Your task to perform on an android device: turn off sleep mode Image 0: 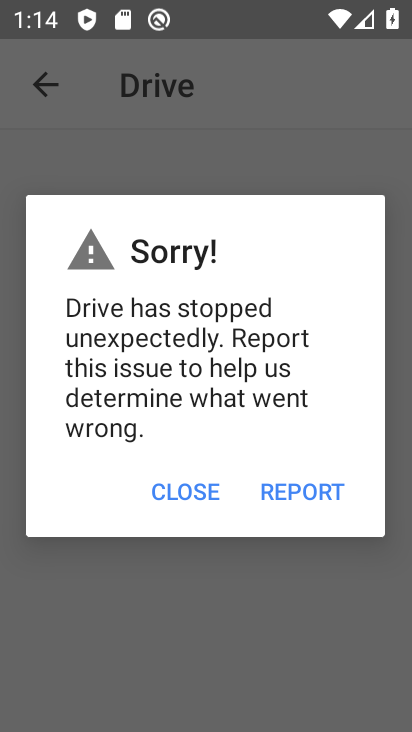
Step 0: press home button
Your task to perform on an android device: turn off sleep mode Image 1: 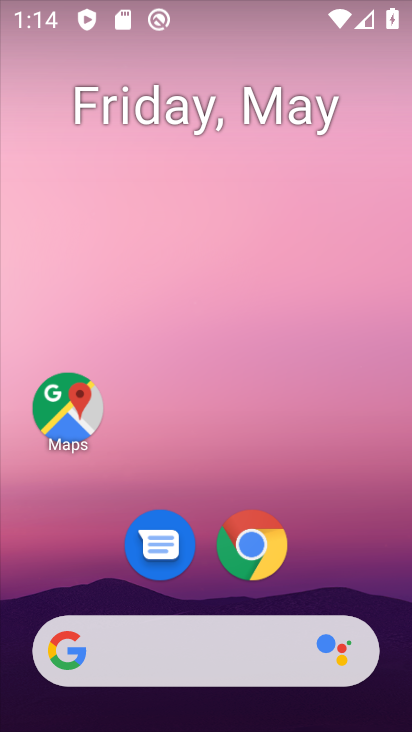
Step 1: click (394, 494)
Your task to perform on an android device: turn off sleep mode Image 2: 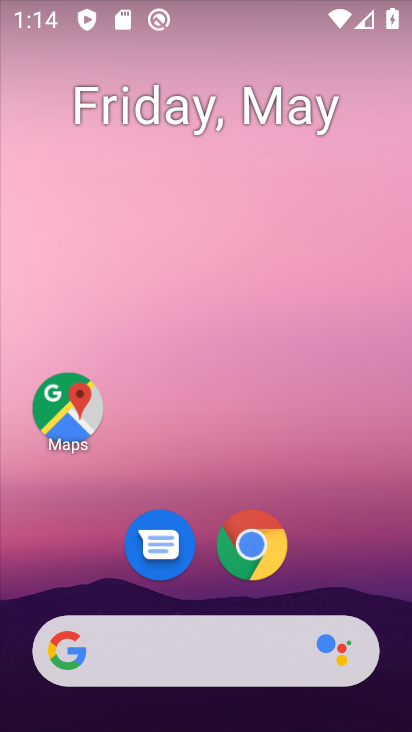
Step 2: drag from (390, 585) to (293, 0)
Your task to perform on an android device: turn off sleep mode Image 3: 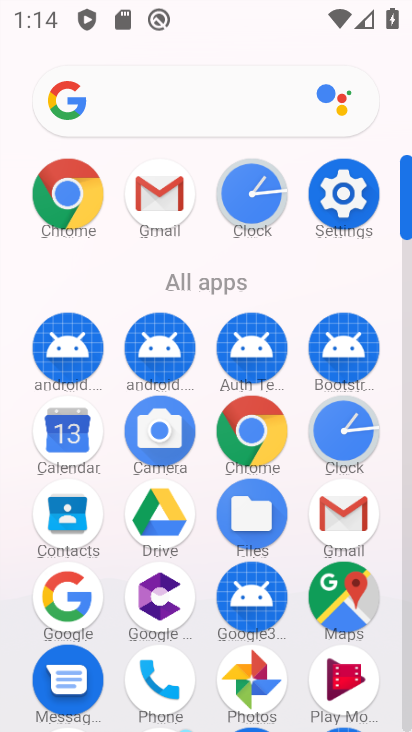
Step 3: click (338, 218)
Your task to perform on an android device: turn off sleep mode Image 4: 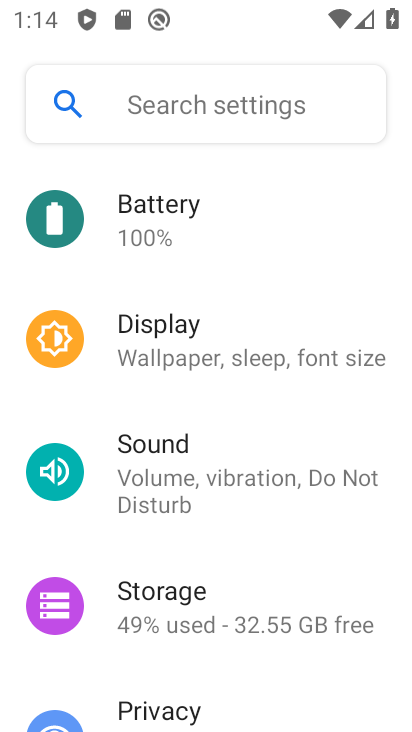
Step 4: click (191, 356)
Your task to perform on an android device: turn off sleep mode Image 5: 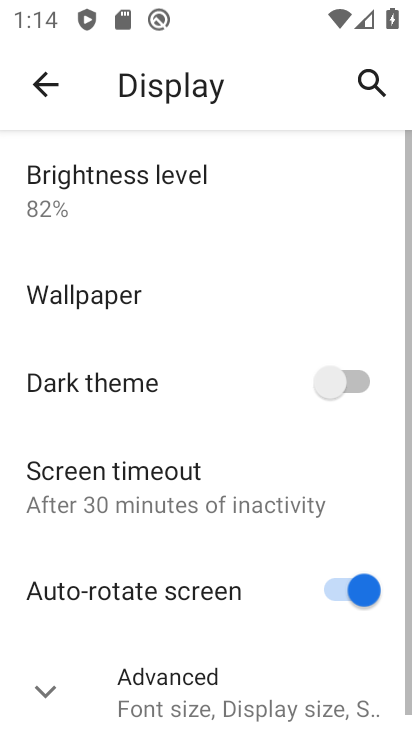
Step 5: drag from (279, 534) to (233, 329)
Your task to perform on an android device: turn off sleep mode Image 6: 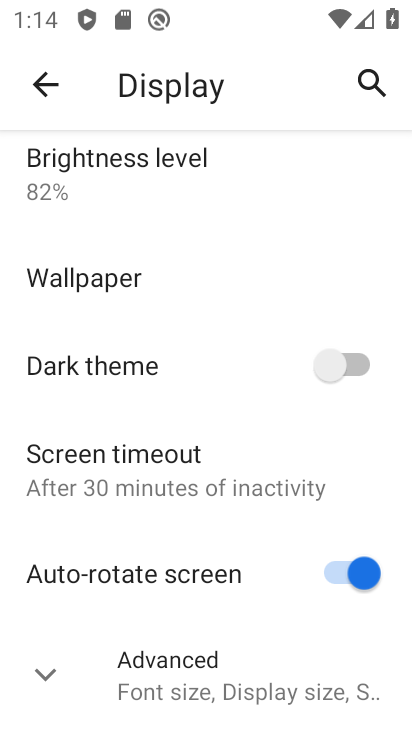
Step 6: click (259, 464)
Your task to perform on an android device: turn off sleep mode Image 7: 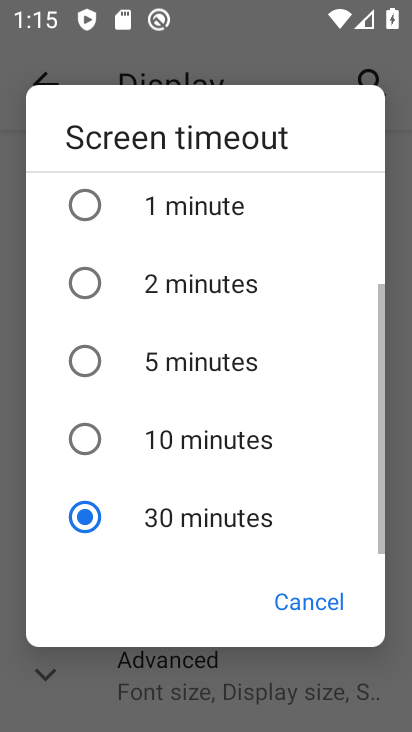
Step 7: task complete